Your task to perform on an android device: When is my next appointment? Image 0: 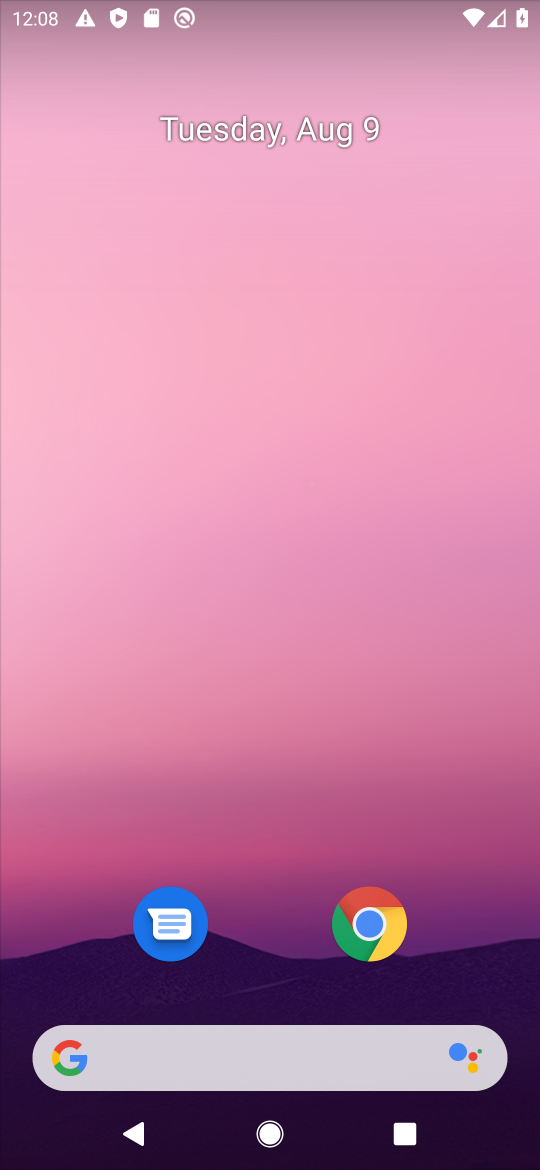
Step 0: press home button
Your task to perform on an android device: When is my next appointment? Image 1: 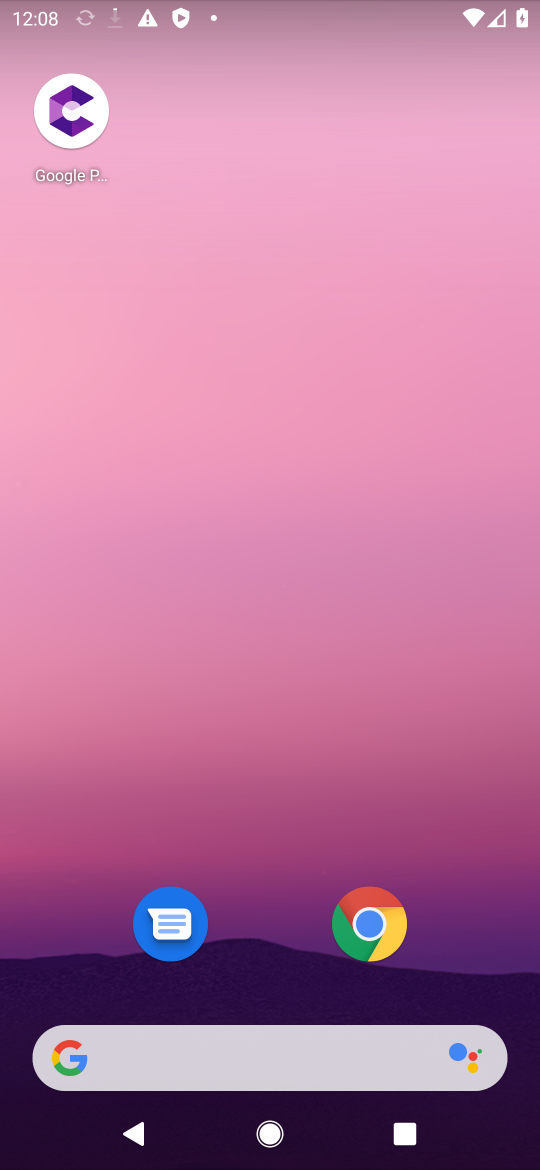
Step 1: drag from (271, 979) to (297, 104)
Your task to perform on an android device: When is my next appointment? Image 2: 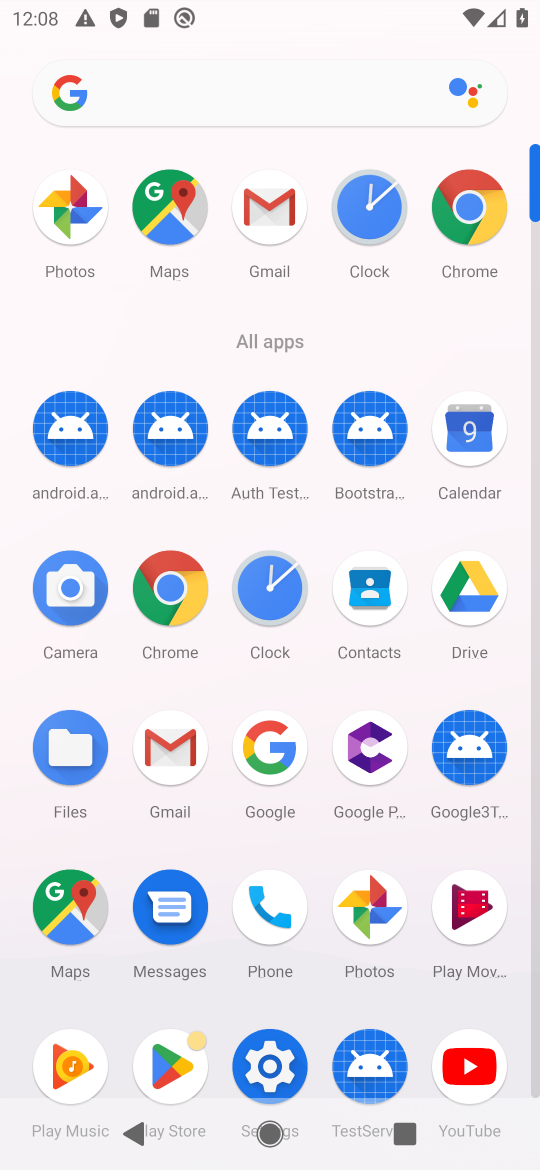
Step 2: click (465, 455)
Your task to perform on an android device: When is my next appointment? Image 3: 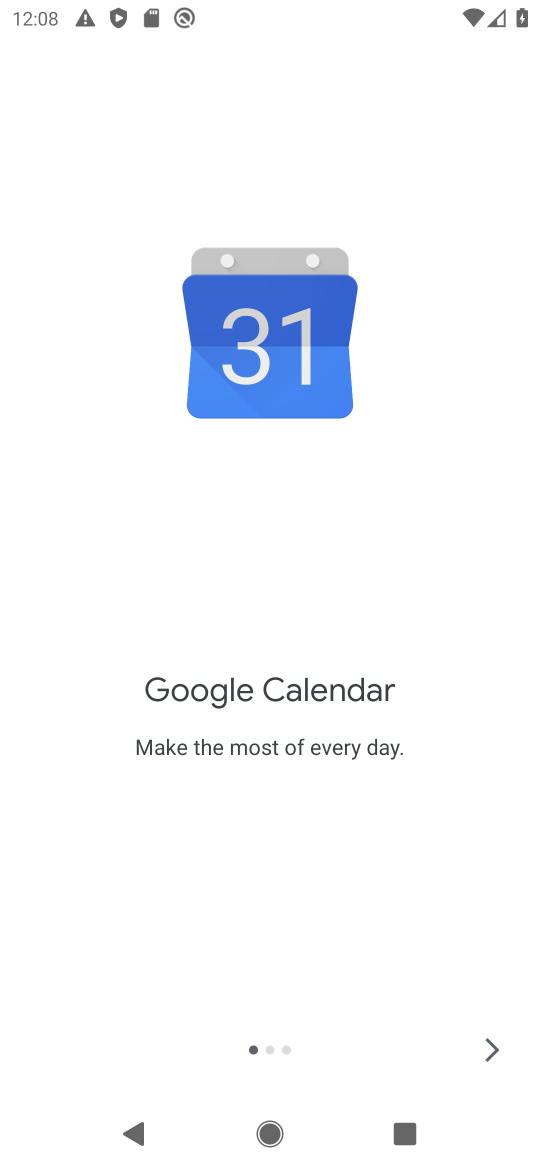
Step 3: click (495, 1051)
Your task to perform on an android device: When is my next appointment? Image 4: 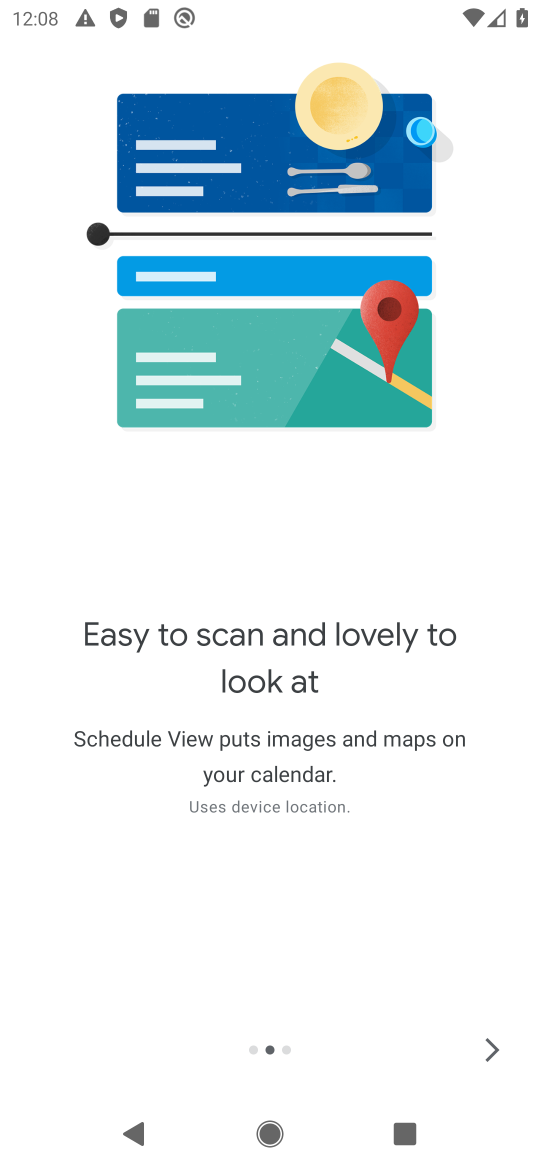
Step 4: click (495, 1051)
Your task to perform on an android device: When is my next appointment? Image 5: 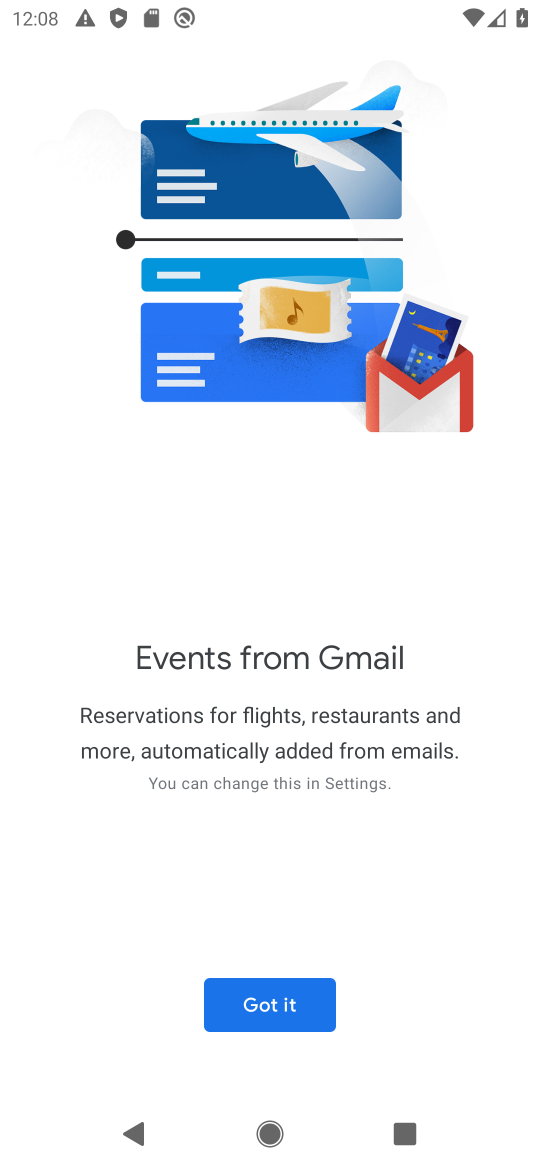
Step 5: click (292, 1009)
Your task to perform on an android device: When is my next appointment? Image 6: 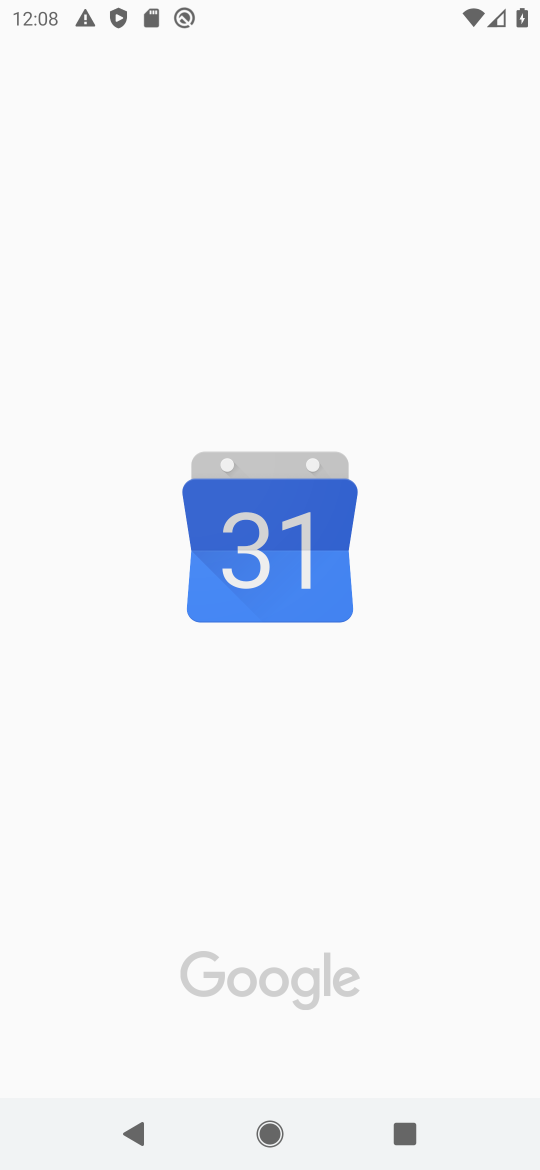
Step 6: task complete